Your task to perform on an android device: Open accessibility settings Image 0: 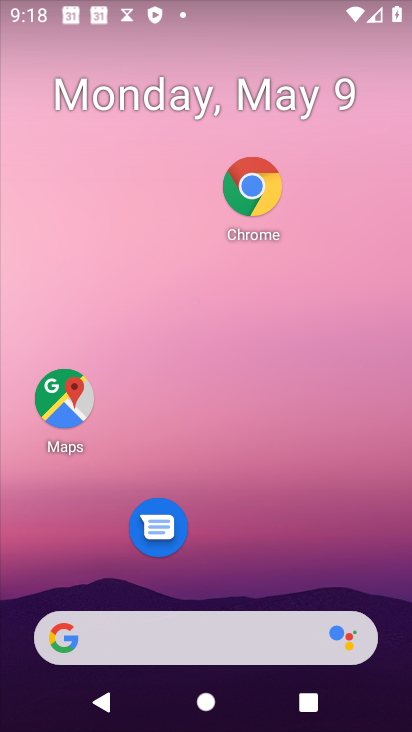
Step 0: press home button
Your task to perform on an android device: Open accessibility settings Image 1: 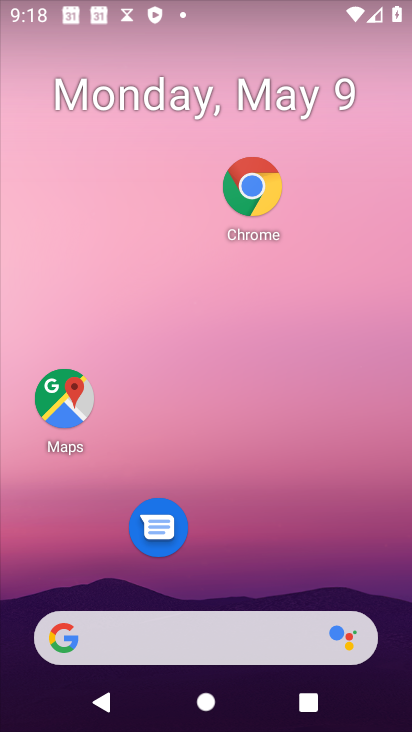
Step 1: drag from (217, 557) to (234, 124)
Your task to perform on an android device: Open accessibility settings Image 2: 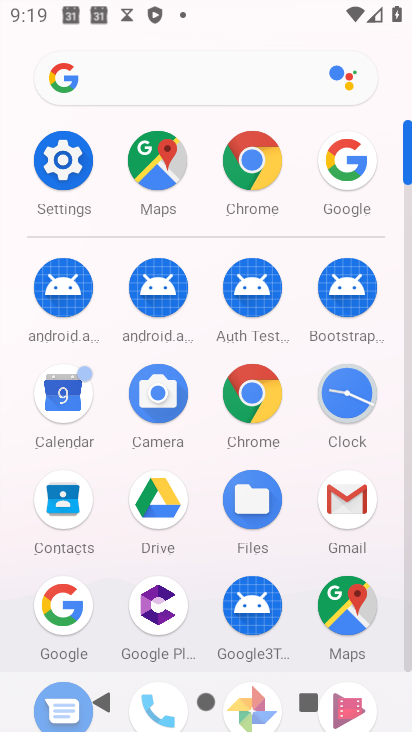
Step 2: click (54, 151)
Your task to perform on an android device: Open accessibility settings Image 3: 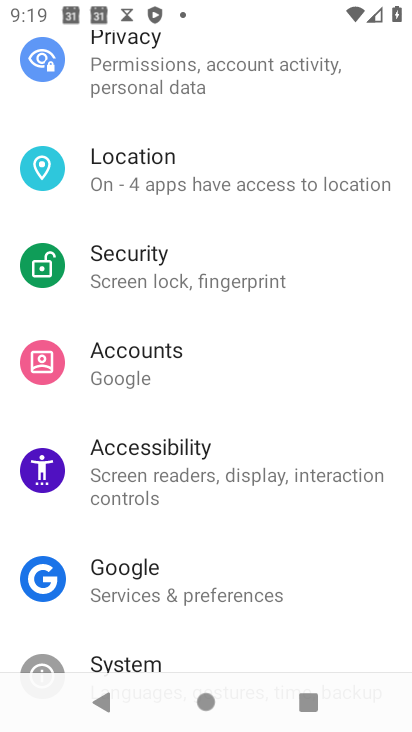
Step 3: click (165, 457)
Your task to perform on an android device: Open accessibility settings Image 4: 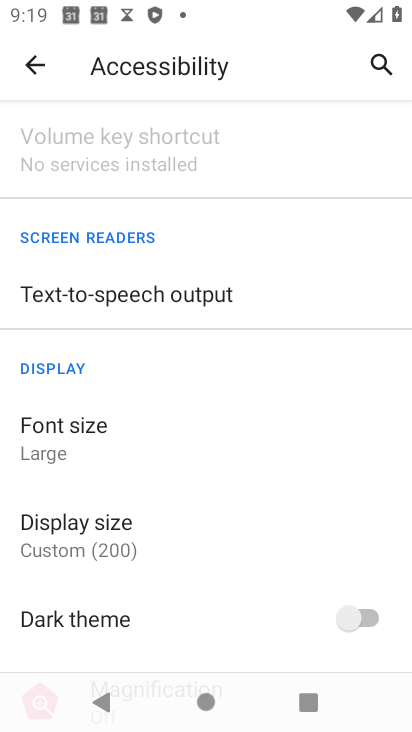
Step 4: task complete